Your task to perform on an android device: check storage Image 0: 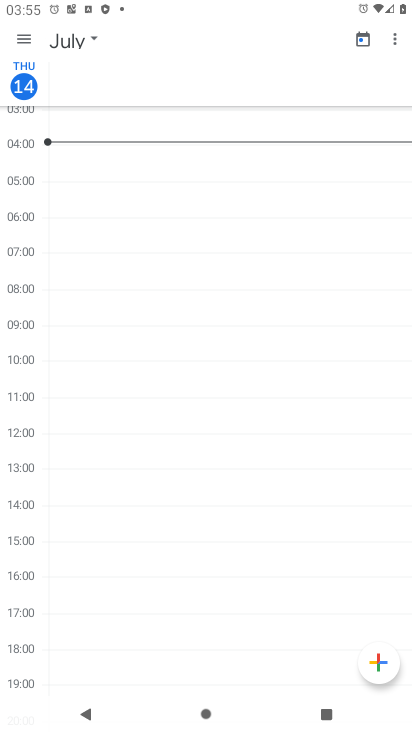
Step 0: press home button
Your task to perform on an android device: check storage Image 1: 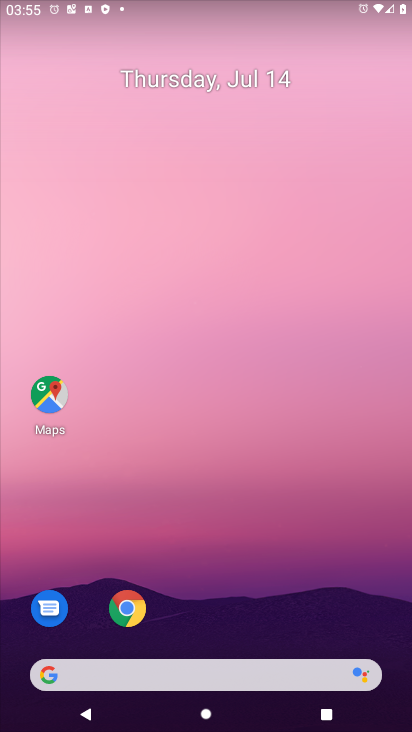
Step 1: drag from (372, 627) to (349, 228)
Your task to perform on an android device: check storage Image 2: 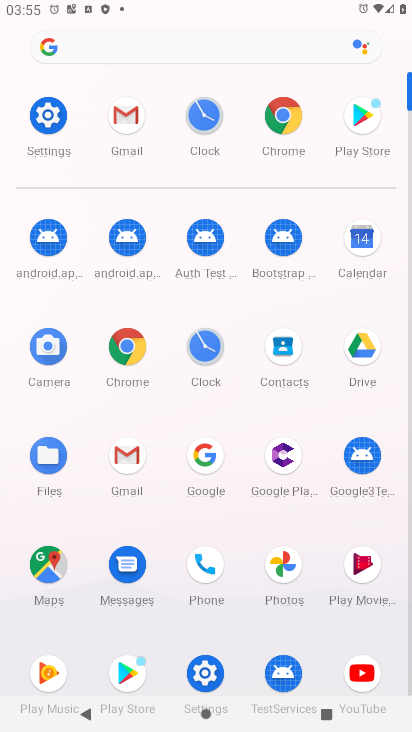
Step 2: click (202, 672)
Your task to perform on an android device: check storage Image 3: 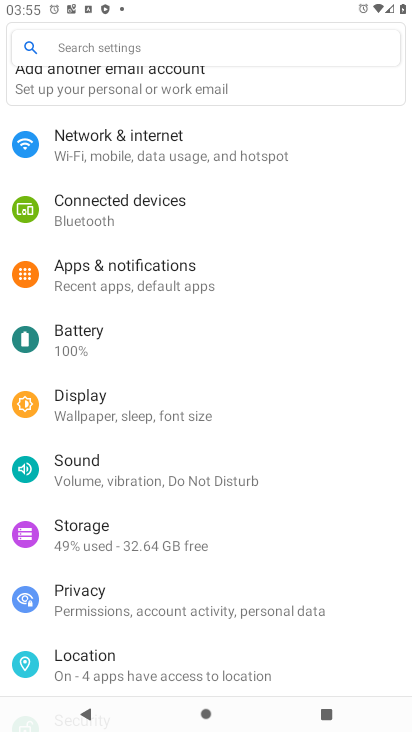
Step 3: click (114, 542)
Your task to perform on an android device: check storage Image 4: 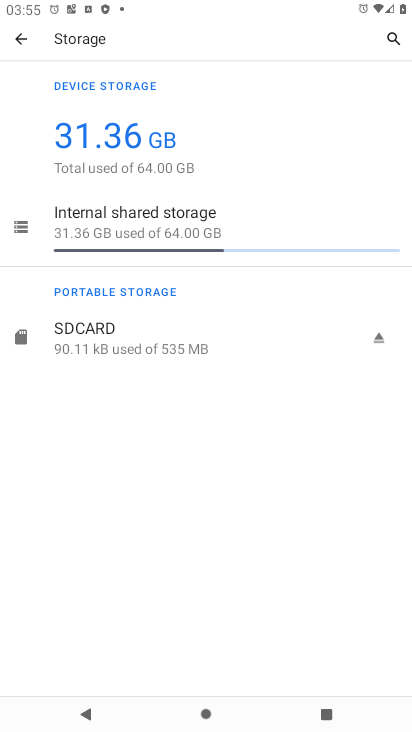
Step 4: task complete